Your task to perform on an android device: Set the phone to "Do not disturb". Image 0: 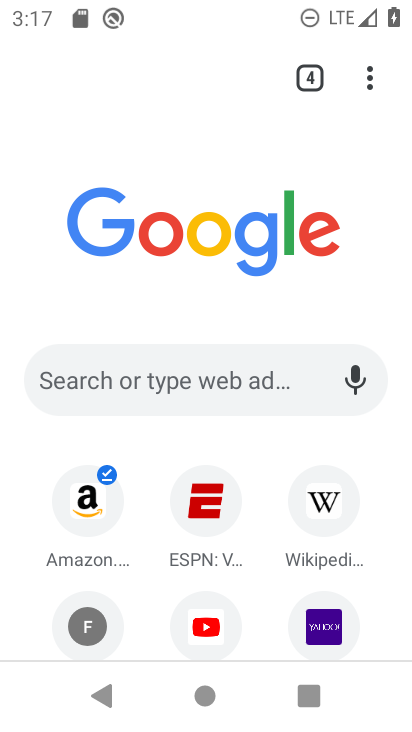
Step 0: press back button
Your task to perform on an android device: Set the phone to "Do not disturb". Image 1: 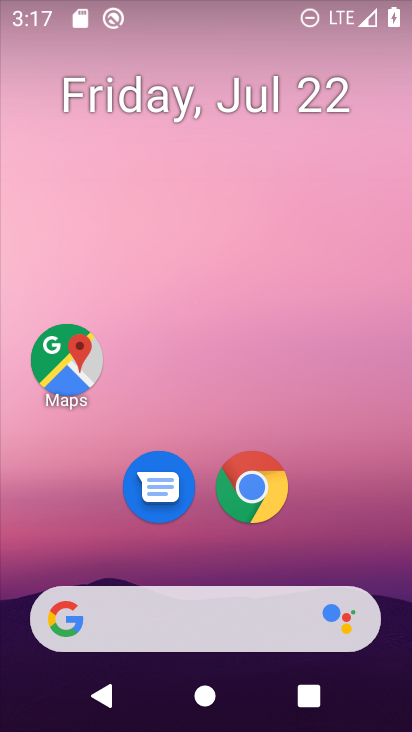
Step 1: task complete